Your task to perform on an android device: see creations saved in the google photos Image 0: 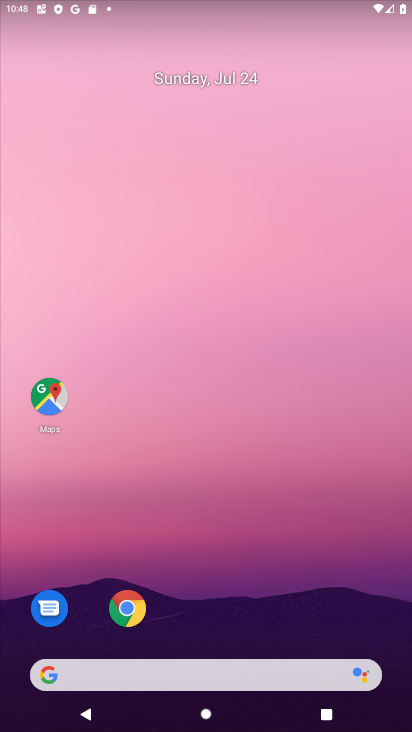
Step 0: press home button
Your task to perform on an android device: see creations saved in the google photos Image 1: 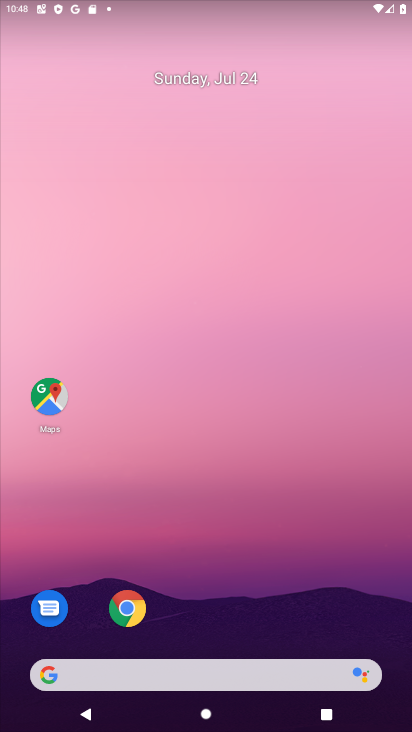
Step 1: drag from (230, 634) to (253, 33)
Your task to perform on an android device: see creations saved in the google photos Image 2: 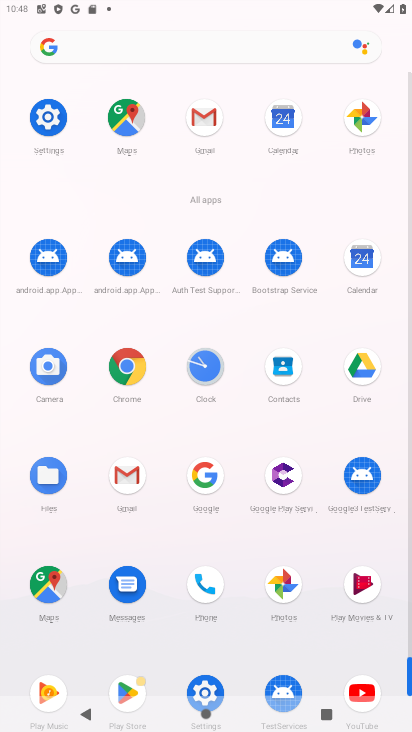
Step 2: click (282, 574)
Your task to perform on an android device: see creations saved in the google photos Image 3: 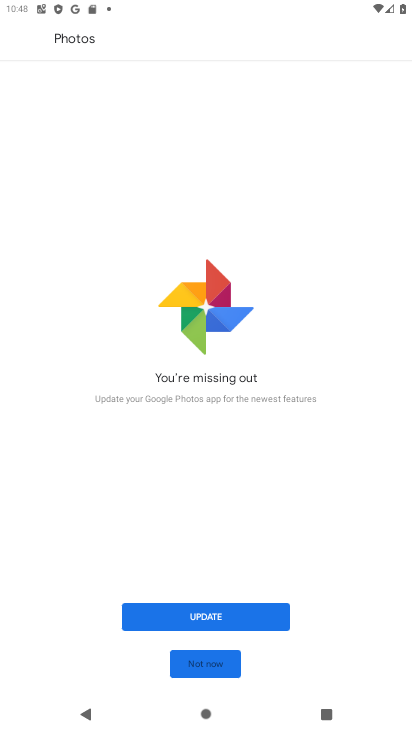
Step 3: click (214, 608)
Your task to perform on an android device: see creations saved in the google photos Image 4: 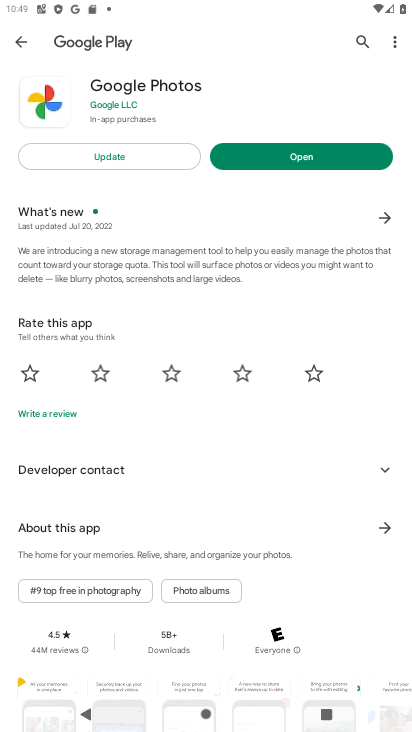
Step 4: click (139, 151)
Your task to perform on an android device: see creations saved in the google photos Image 5: 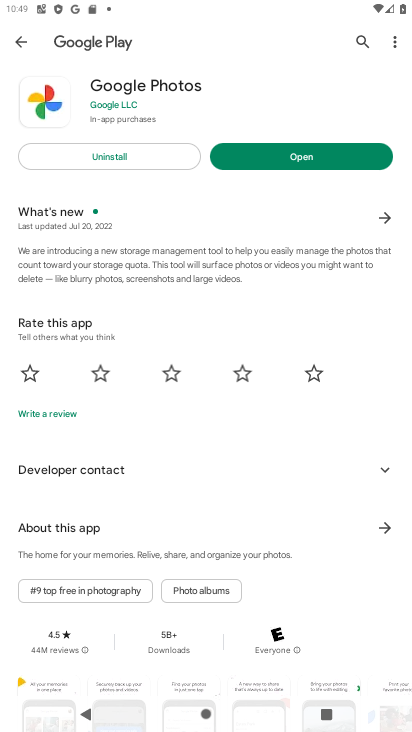
Step 5: click (286, 152)
Your task to perform on an android device: see creations saved in the google photos Image 6: 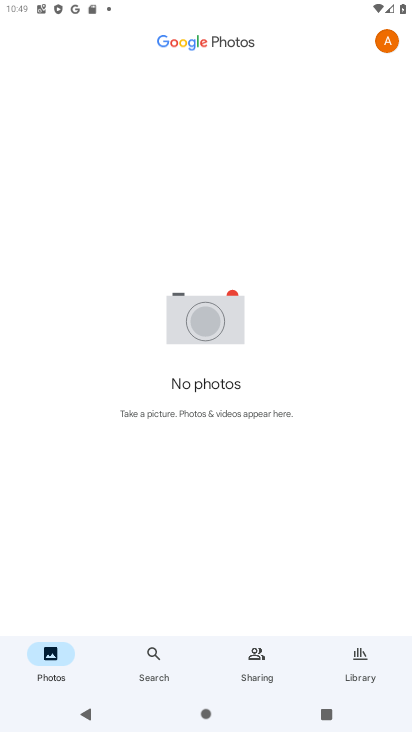
Step 6: click (139, 34)
Your task to perform on an android device: see creations saved in the google photos Image 7: 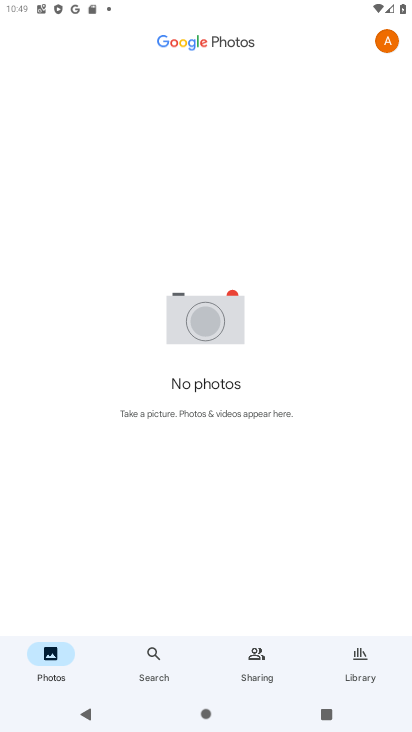
Step 7: click (145, 663)
Your task to perform on an android device: see creations saved in the google photos Image 8: 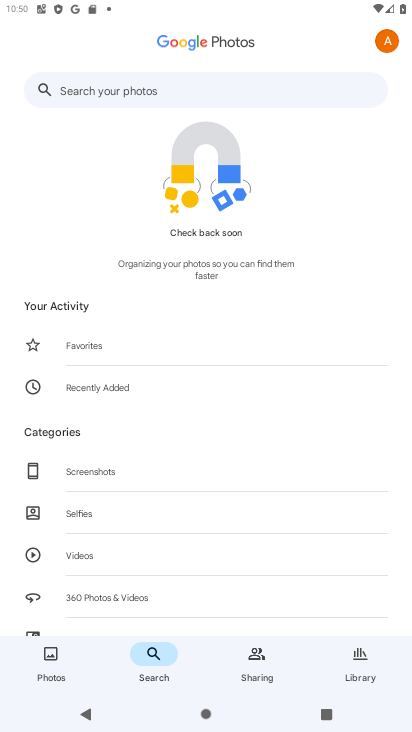
Step 8: drag from (104, 496) to (105, 136)
Your task to perform on an android device: see creations saved in the google photos Image 9: 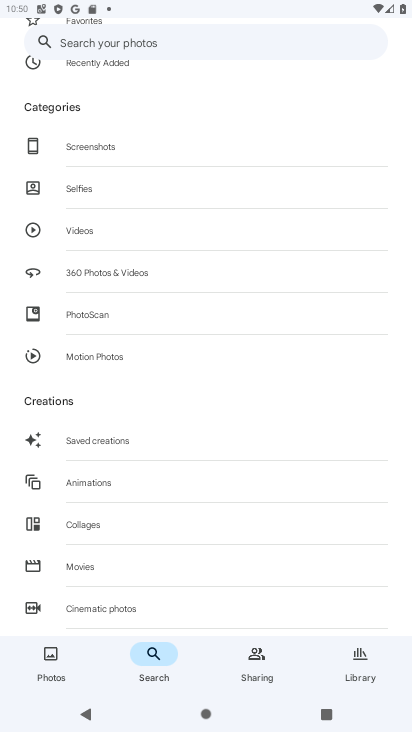
Step 9: click (90, 445)
Your task to perform on an android device: see creations saved in the google photos Image 10: 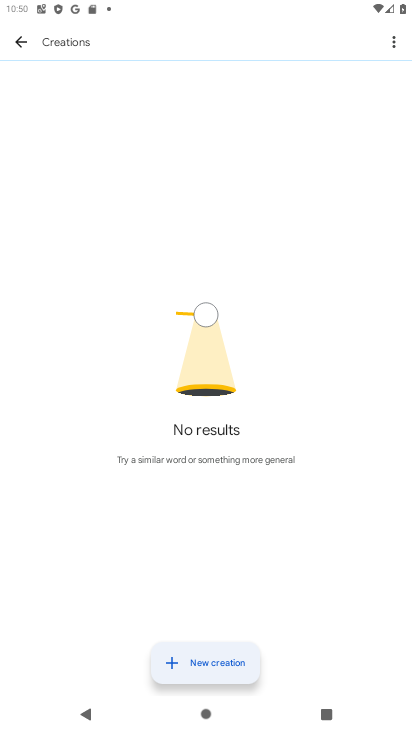
Step 10: task complete